Your task to perform on an android device: turn on airplane mode Image 0: 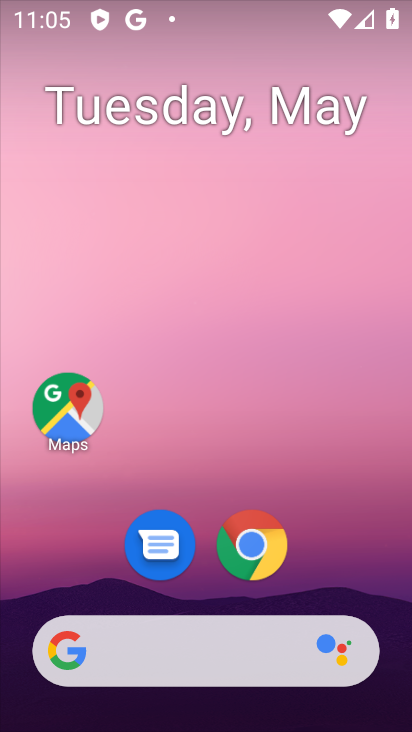
Step 0: drag from (384, 530) to (362, 168)
Your task to perform on an android device: turn on airplane mode Image 1: 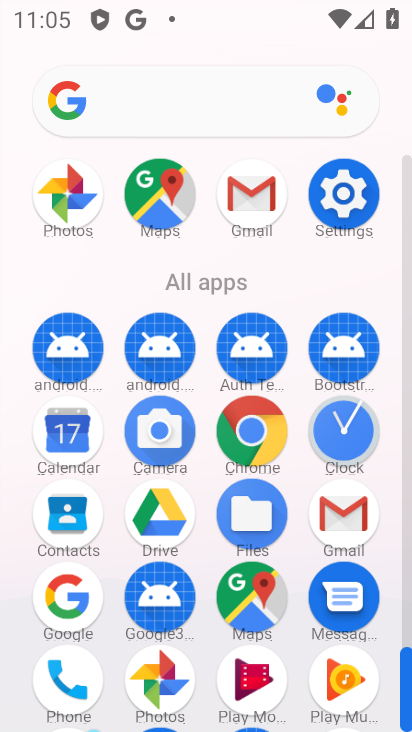
Step 1: click (343, 193)
Your task to perform on an android device: turn on airplane mode Image 2: 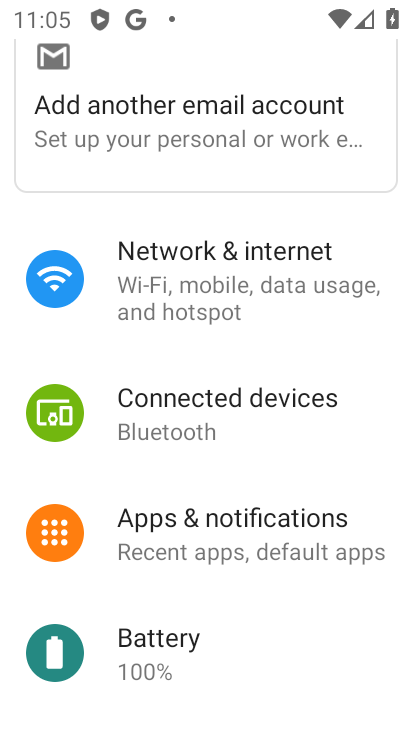
Step 2: click (251, 286)
Your task to perform on an android device: turn on airplane mode Image 3: 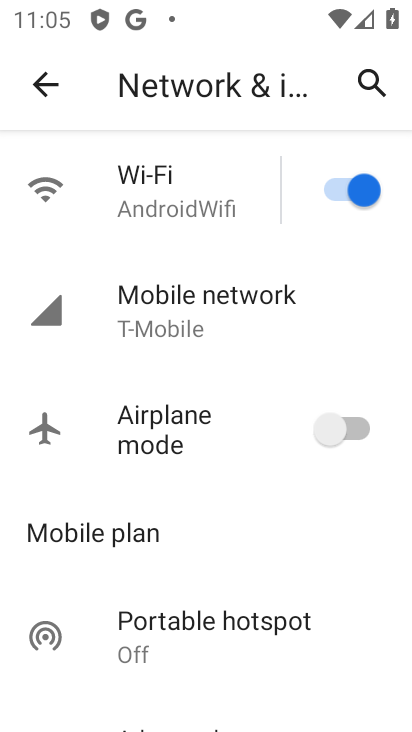
Step 3: click (356, 428)
Your task to perform on an android device: turn on airplane mode Image 4: 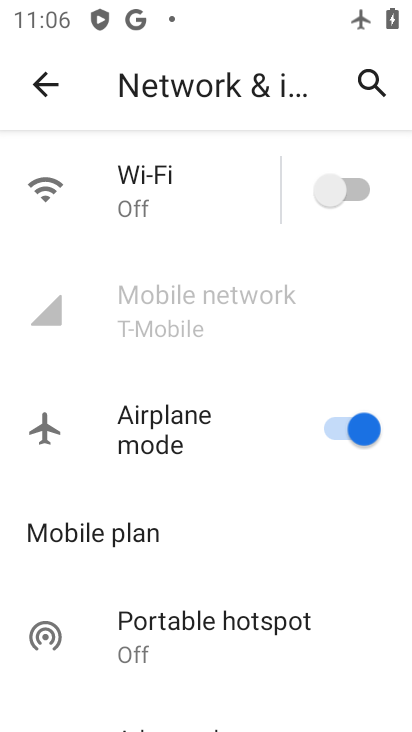
Step 4: task complete